Your task to perform on an android device: Turn on the flashlight Image 0: 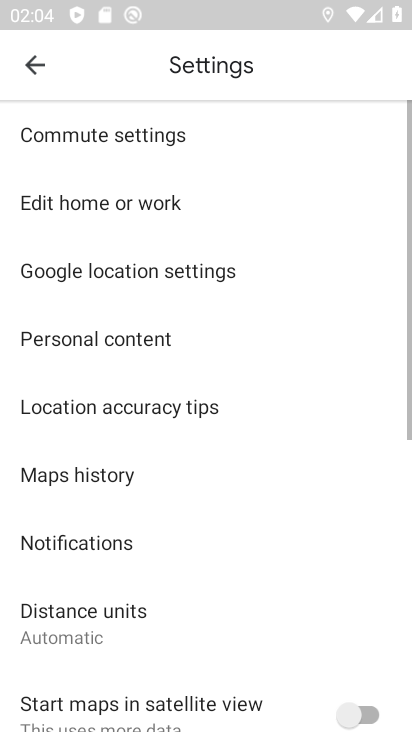
Step 0: press home button
Your task to perform on an android device: Turn on the flashlight Image 1: 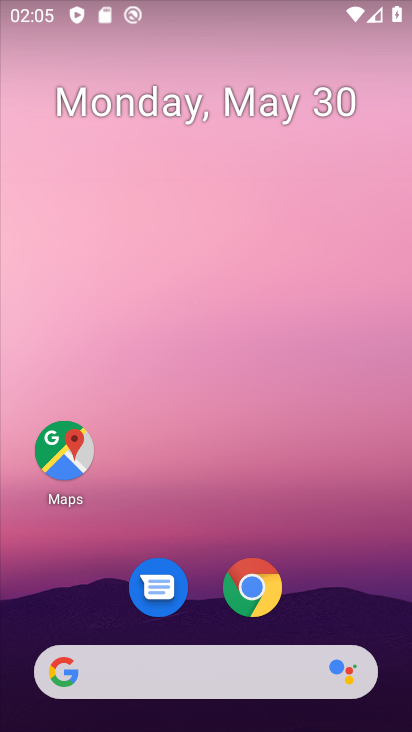
Step 1: drag from (189, 18) to (181, 533)
Your task to perform on an android device: Turn on the flashlight Image 2: 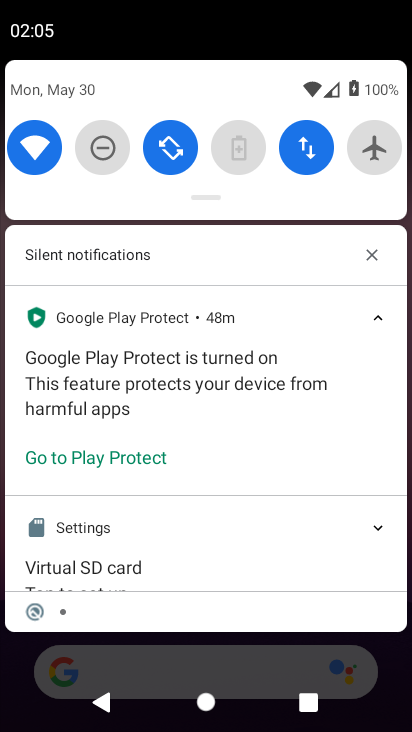
Step 2: drag from (199, 206) to (195, 667)
Your task to perform on an android device: Turn on the flashlight Image 3: 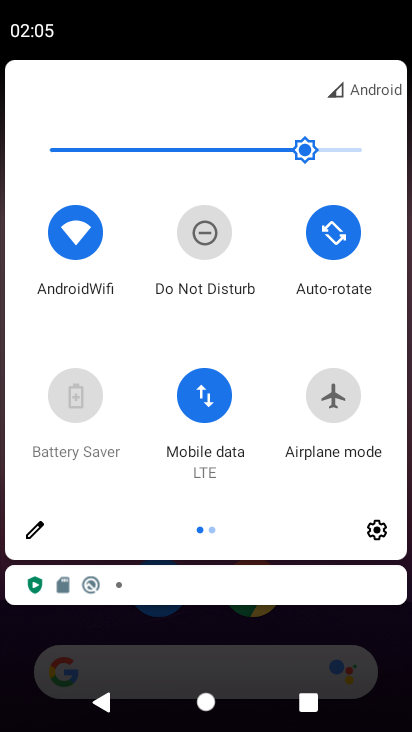
Step 3: click (34, 537)
Your task to perform on an android device: Turn on the flashlight Image 4: 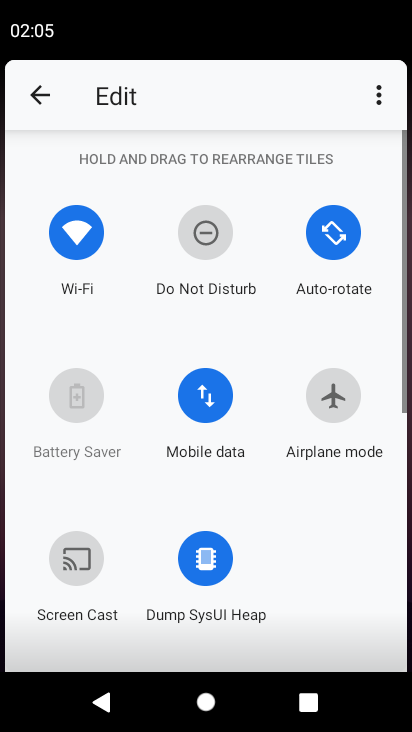
Step 4: task complete